Your task to perform on an android device: check google app version Image 0: 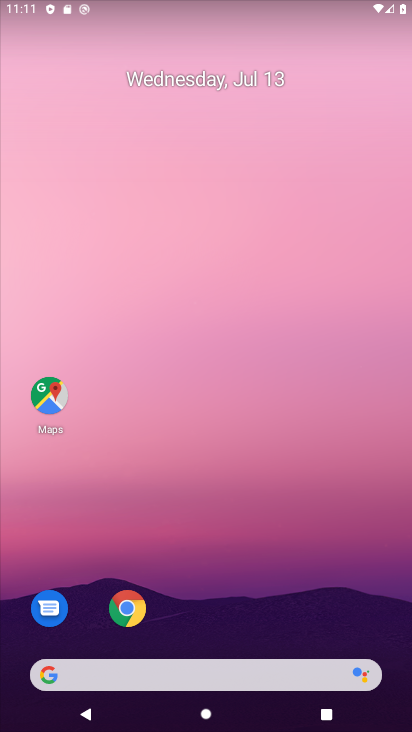
Step 0: drag from (265, 631) to (337, 33)
Your task to perform on an android device: check google app version Image 1: 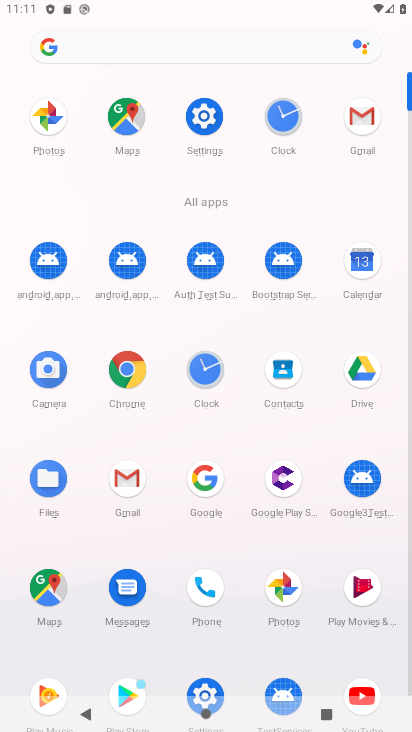
Step 1: click (194, 490)
Your task to perform on an android device: check google app version Image 2: 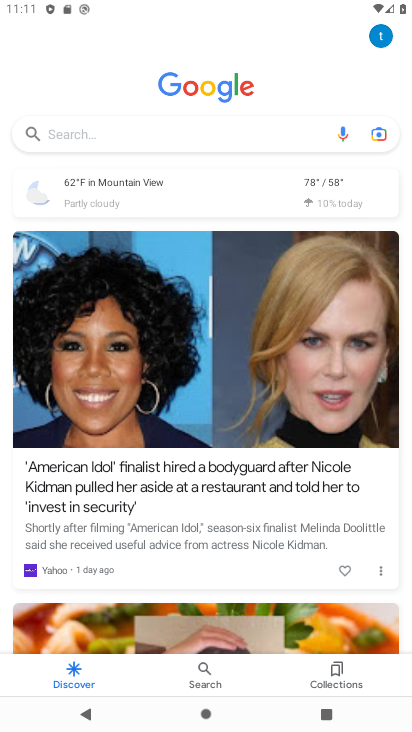
Step 2: click (381, 28)
Your task to perform on an android device: check google app version Image 3: 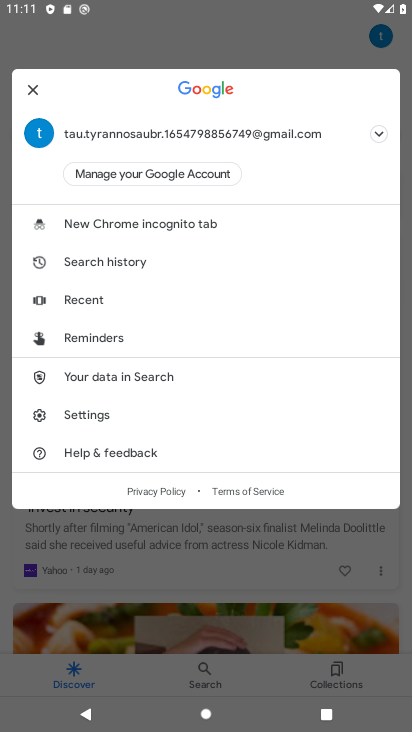
Step 3: click (105, 413)
Your task to perform on an android device: check google app version Image 4: 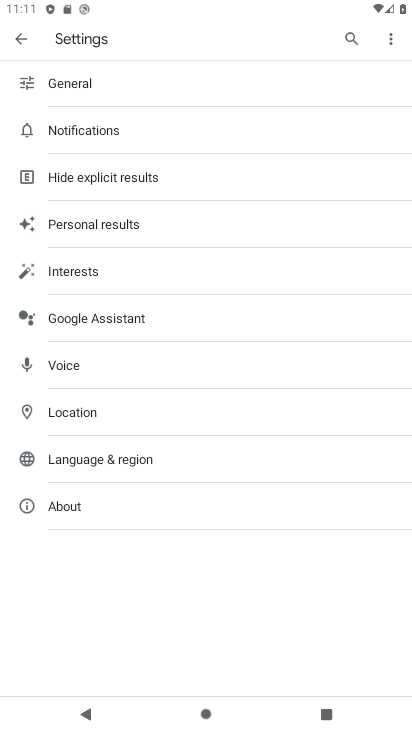
Step 4: click (106, 506)
Your task to perform on an android device: check google app version Image 5: 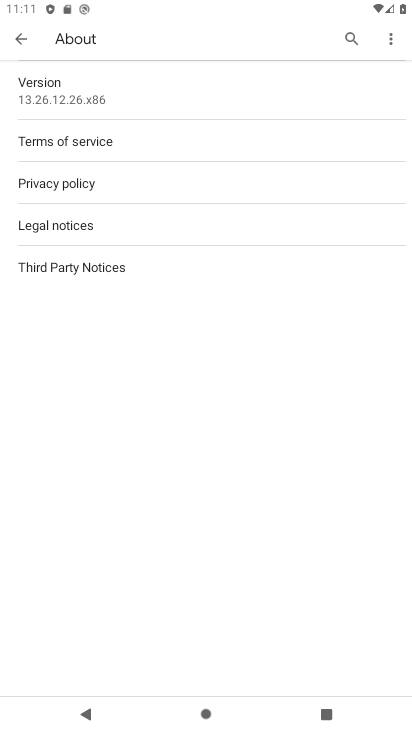
Step 5: click (213, 89)
Your task to perform on an android device: check google app version Image 6: 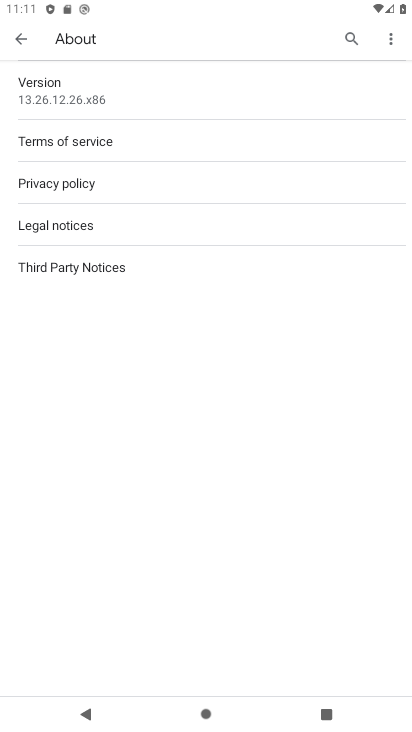
Step 6: task complete